Your task to perform on an android device: find snoozed emails in the gmail app Image 0: 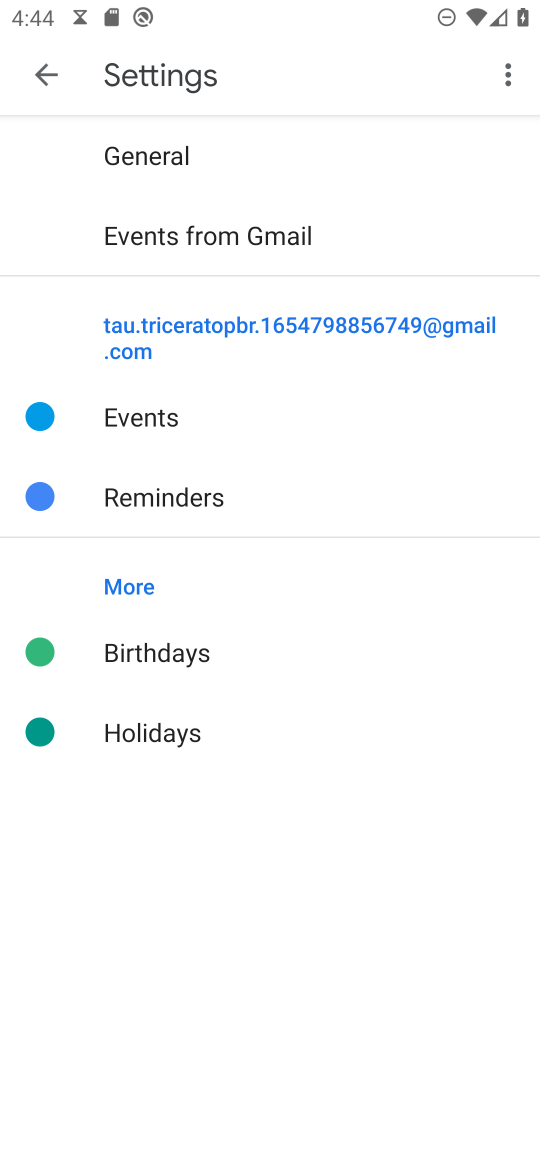
Step 0: press home button
Your task to perform on an android device: find snoozed emails in the gmail app Image 1: 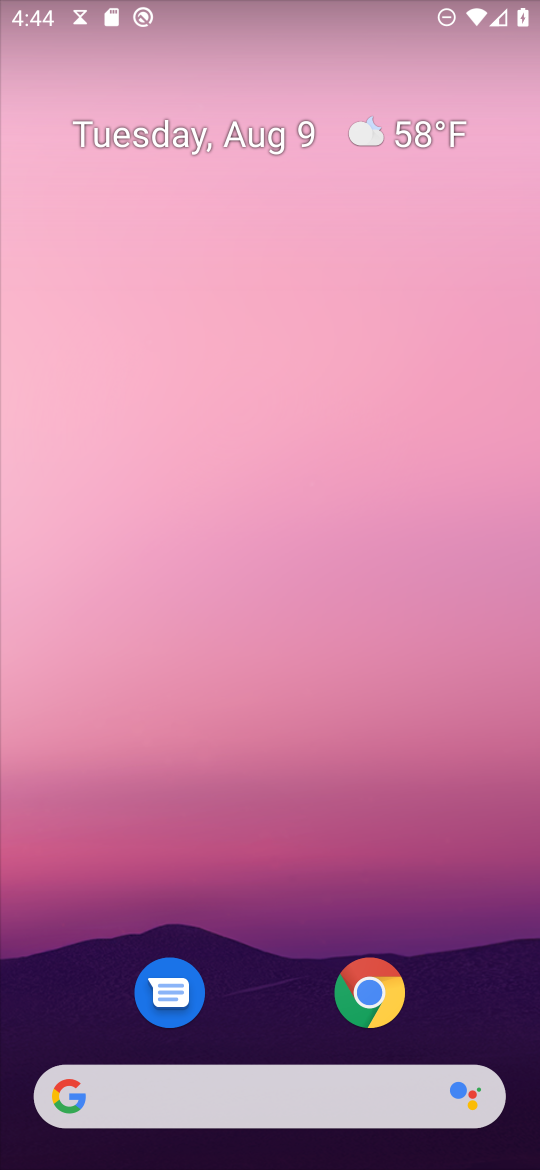
Step 1: drag from (228, 1087) to (364, 181)
Your task to perform on an android device: find snoozed emails in the gmail app Image 2: 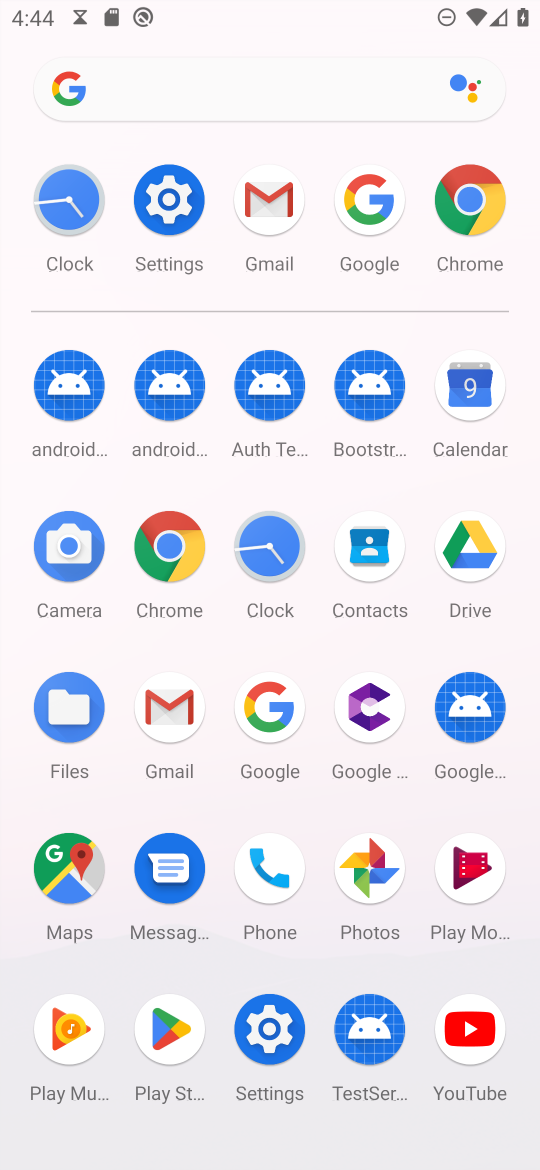
Step 2: click (167, 718)
Your task to perform on an android device: find snoozed emails in the gmail app Image 3: 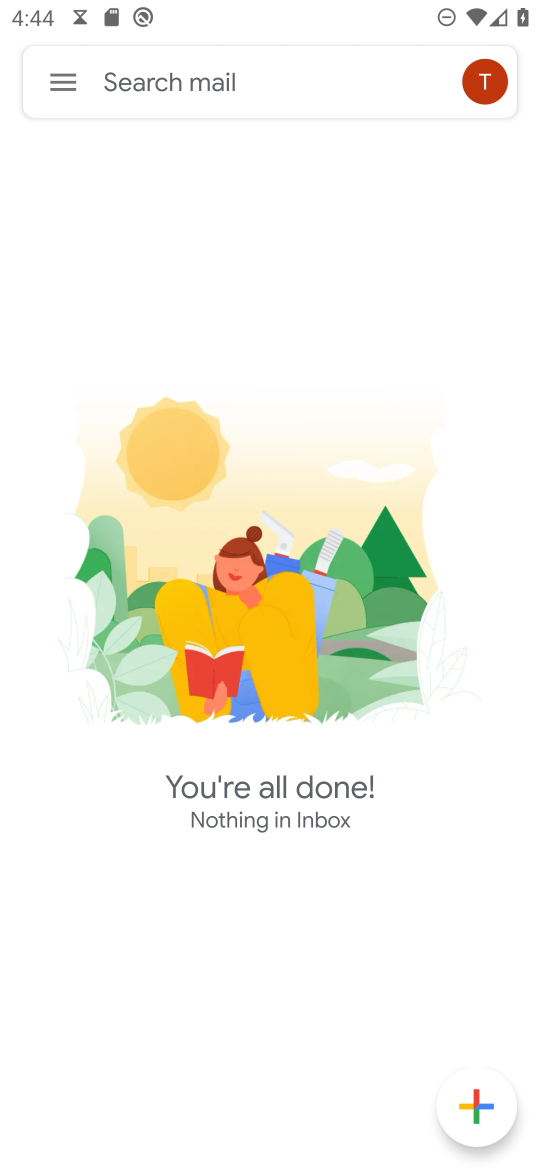
Step 3: click (53, 73)
Your task to perform on an android device: find snoozed emails in the gmail app Image 4: 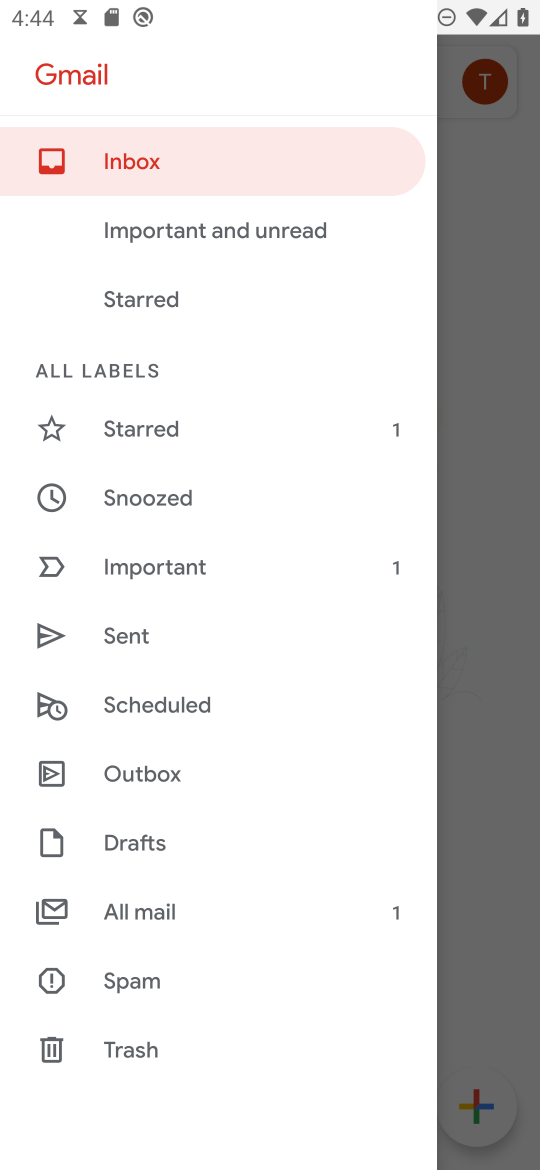
Step 4: click (145, 496)
Your task to perform on an android device: find snoozed emails in the gmail app Image 5: 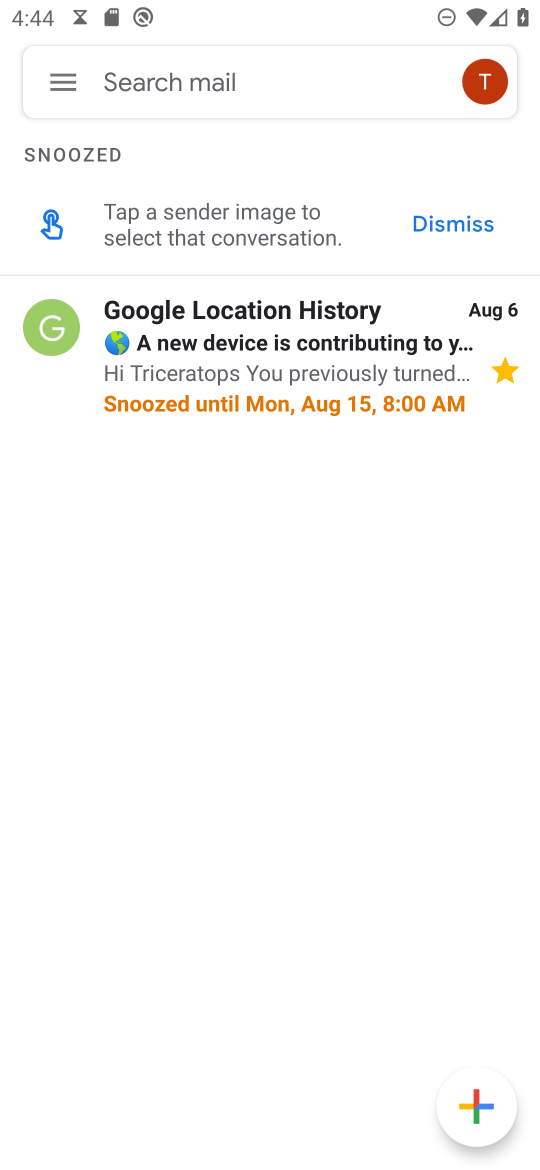
Step 5: task complete